Your task to perform on an android device: Go to location settings Image 0: 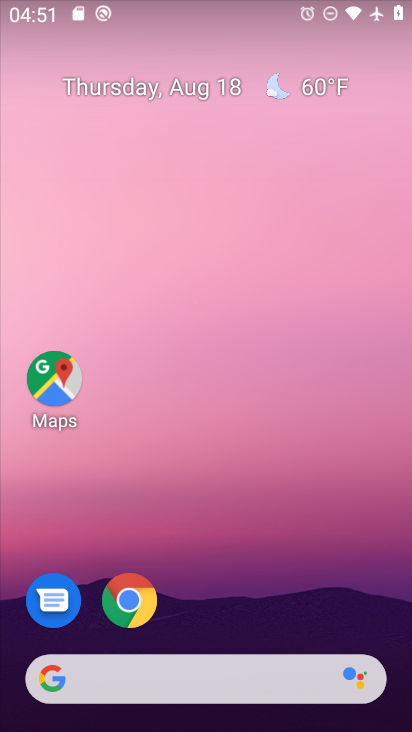
Step 0: press home button
Your task to perform on an android device: Go to location settings Image 1: 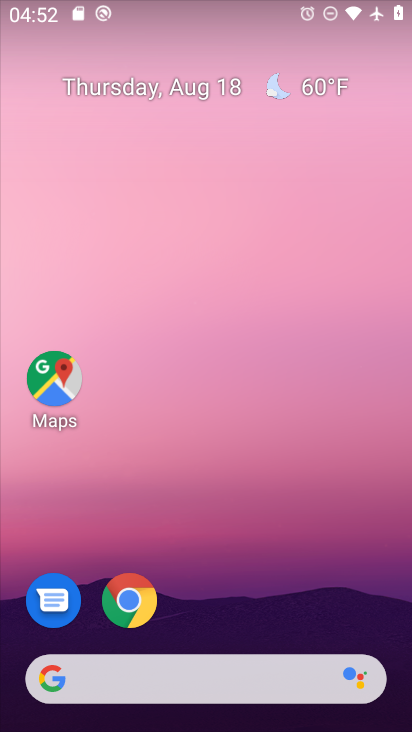
Step 1: drag from (216, 629) to (236, 104)
Your task to perform on an android device: Go to location settings Image 2: 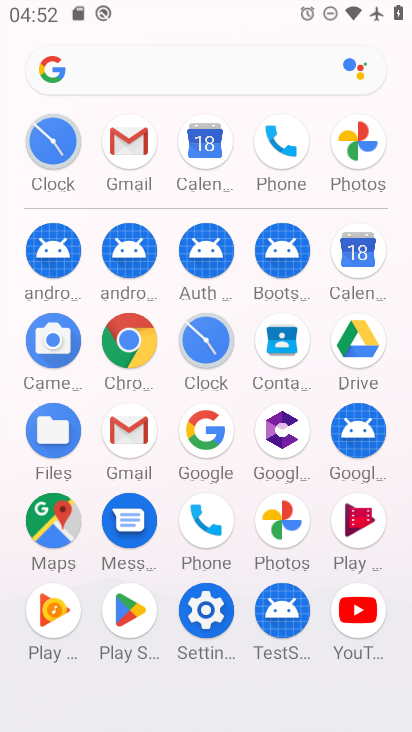
Step 2: click (212, 607)
Your task to perform on an android device: Go to location settings Image 3: 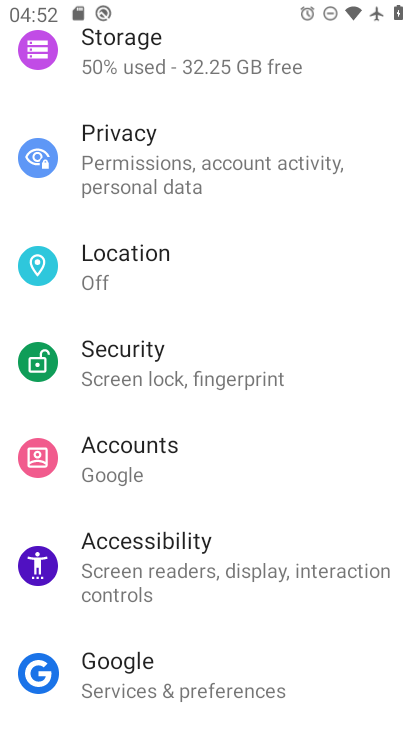
Step 3: click (102, 269)
Your task to perform on an android device: Go to location settings Image 4: 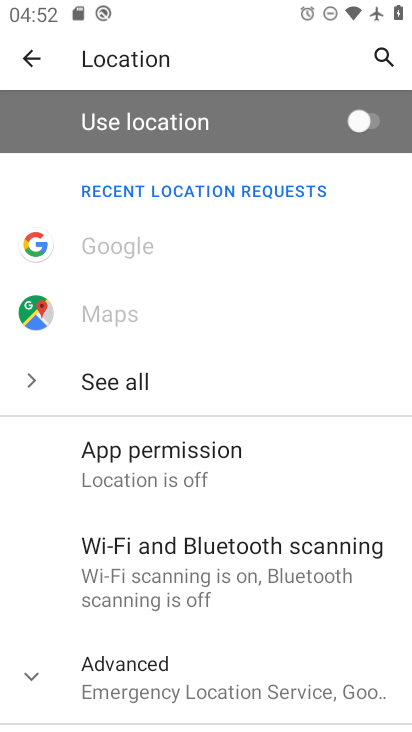
Step 4: task complete